Your task to perform on an android device: turn off smart reply in the gmail app Image 0: 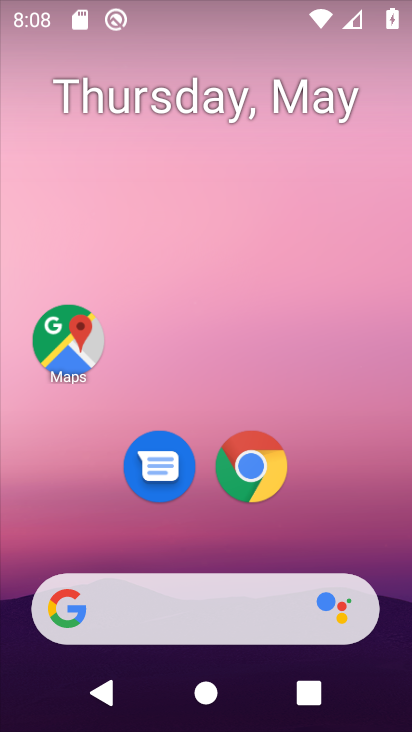
Step 0: drag from (325, 519) to (257, 105)
Your task to perform on an android device: turn off smart reply in the gmail app Image 1: 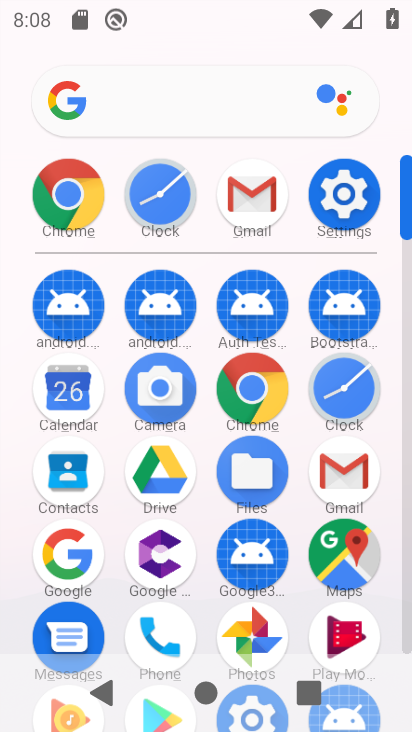
Step 1: click (260, 204)
Your task to perform on an android device: turn off smart reply in the gmail app Image 2: 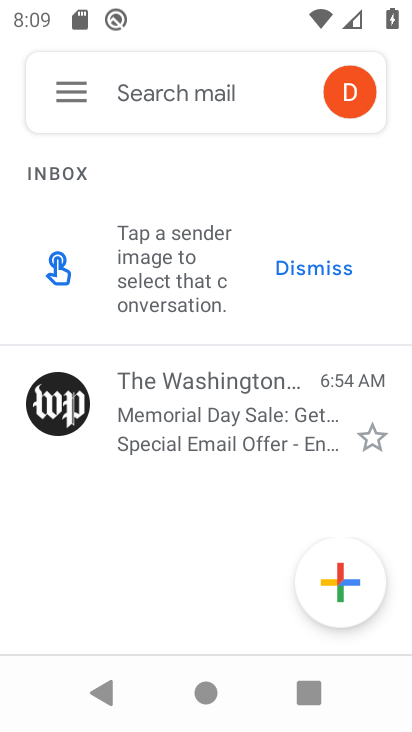
Step 2: click (75, 113)
Your task to perform on an android device: turn off smart reply in the gmail app Image 3: 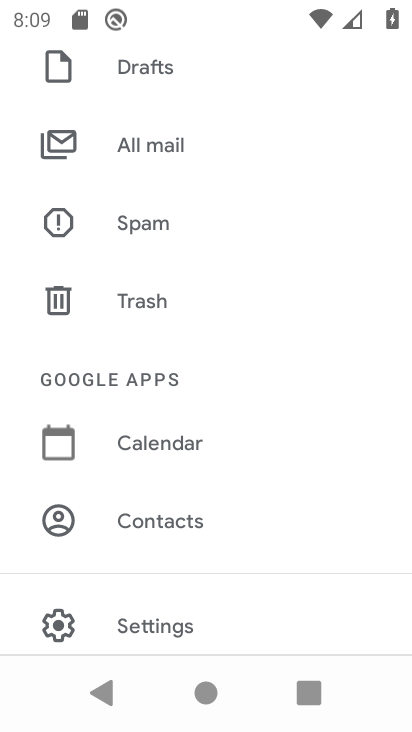
Step 3: click (119, 607)
Your task to perform on an android device: turn off smart reply in the gmail app Image 4: 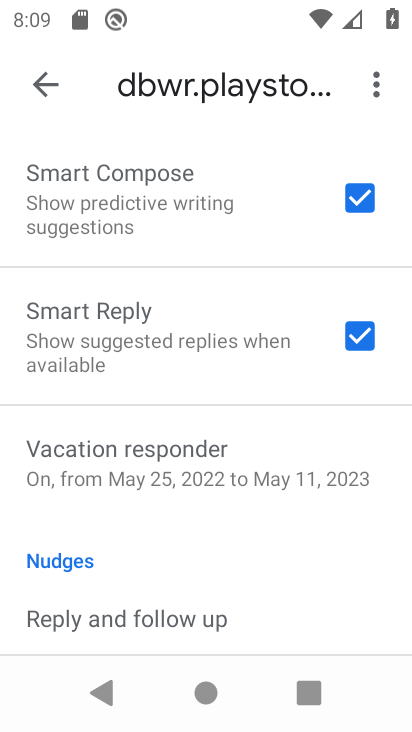
Step 4: click (300, 328)
Your task to perform on an android device: turn off smart reply in the gmail app Image 5: 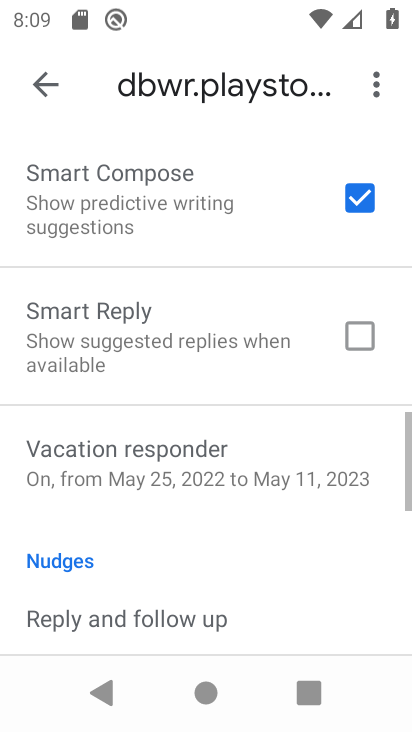
Step 5: task complete